Your task to perform on an android device: Turn off the flashlight Image 0: 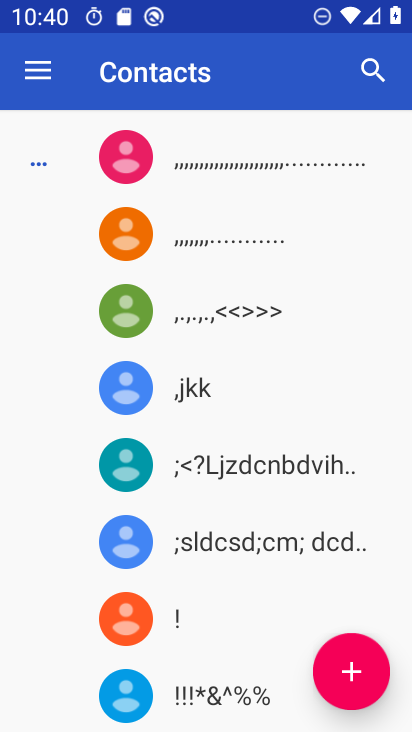
Step 0: press back button
Your task to perform on an android device: Turn off the flashlight Image 1: 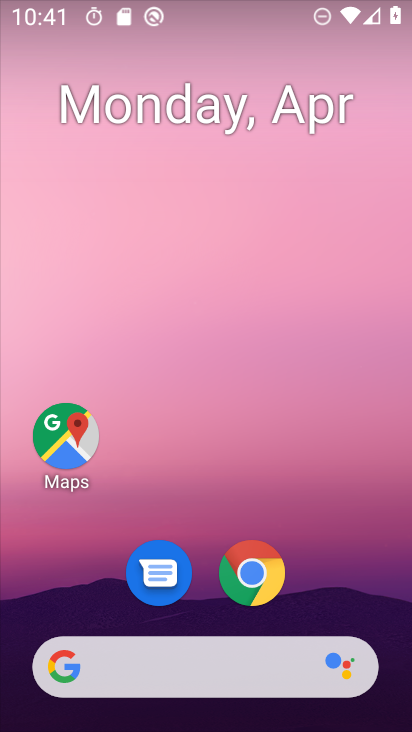
Step 1: drag from (266, 467) to (83, 76)
Your task to perform on an android device: Turn off the flashlight Image 2: 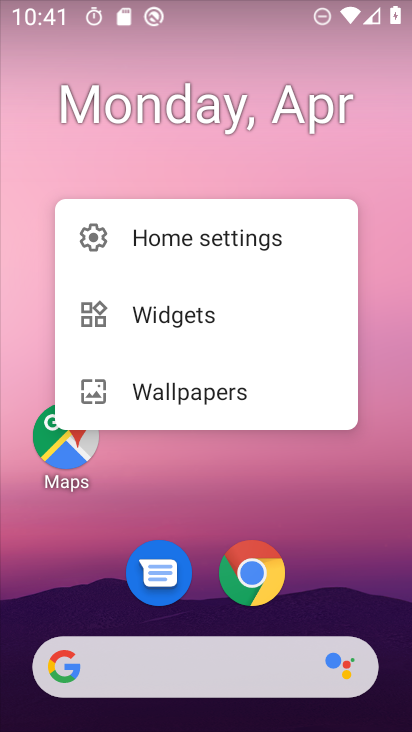
Step 2: drag from (335, 544) to (399, 8)
Your task to perform on an android device: Turn off the flashlight Image 3: 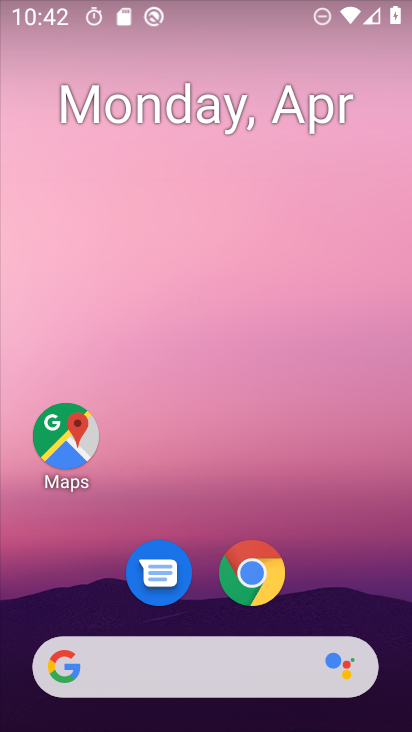
Step 3: drag from (385, 583) to (16, 366)
Your task to perform on an android device: Turn off the flashlight Image 4: 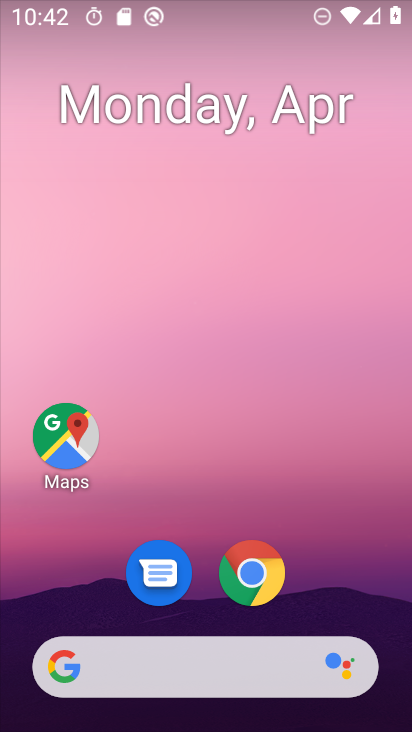
Step 4: drag from (381, 568) to (181, 0)
Your task to perform on an android device: Turn off the flashlight Image 5: 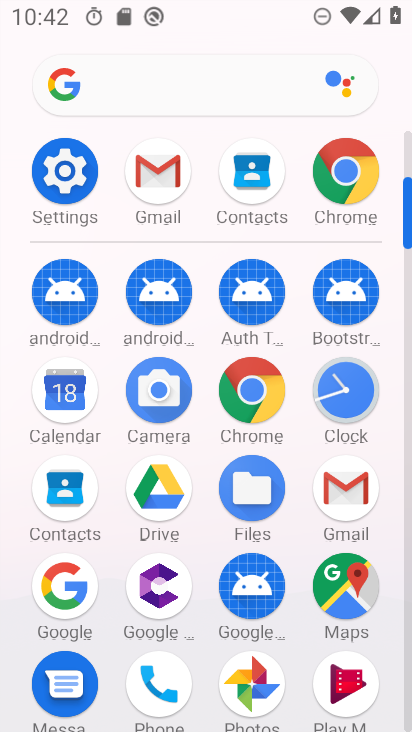
Step 5: drag from (389, 519) to (347, 74)
Your task to perform on an android device: Turn off the flashlight Image 6: 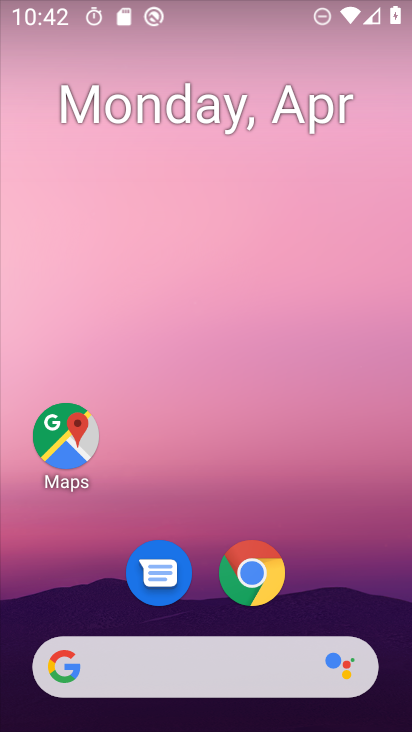
Step 6: click (80, 157)
Your task to perform on an android device: Turn off the flashlight Image 7: 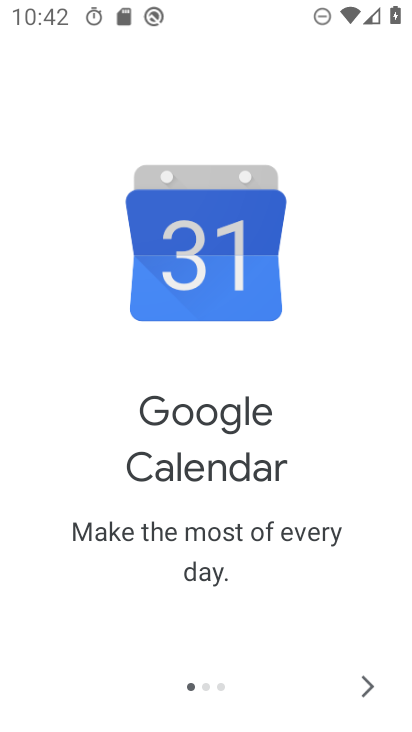
Step 7: press back button
Your task to perform on an android device: Turn off the flashlight Image 8: 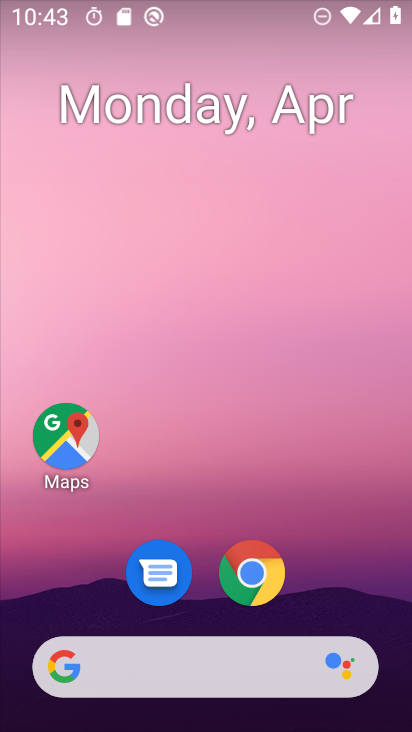
Step 8: drag from (351, 551) to (311, 24)
Your task to perform on an android device: Turn off the flashlight Image 9: 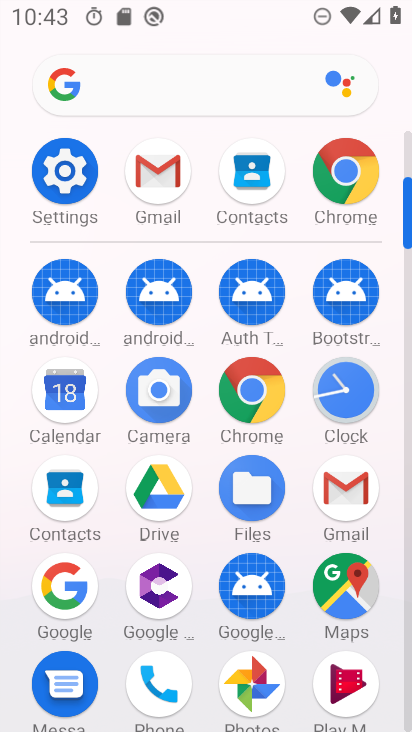
Step 9: click (42, 189)
Your task to perform on an android device: Turn off the flashlight Image 10: 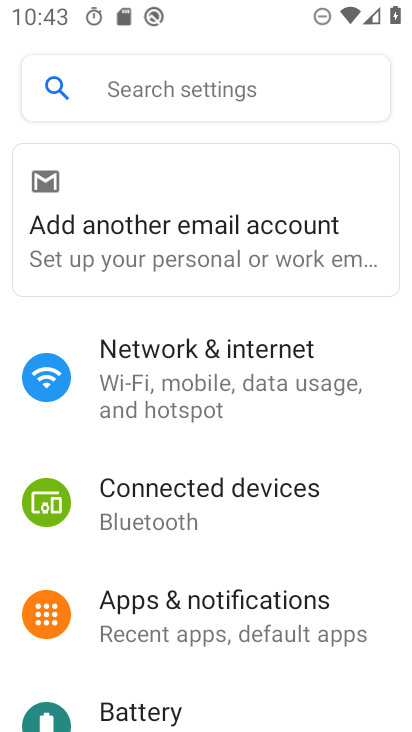
Step 10: drag from (172, 535) to (234, 126)
Your task to perform on an android device: Turn off the flashlight Image 11: 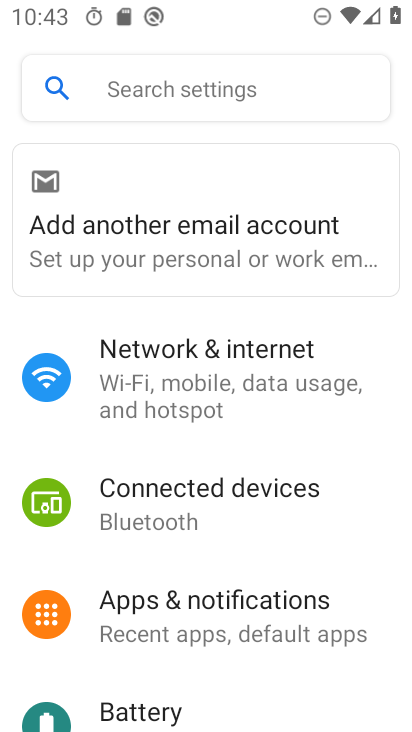
Step 11: click (137, 384)
Your task to perform on an android device: Turn off the flashlight Image 12: 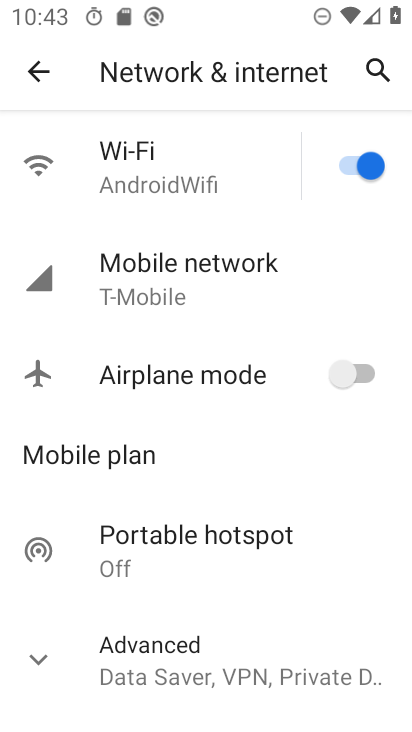
Step 12: task complete